Your task to perform on an android device: Clear the cart on walmart.com. Image 0: 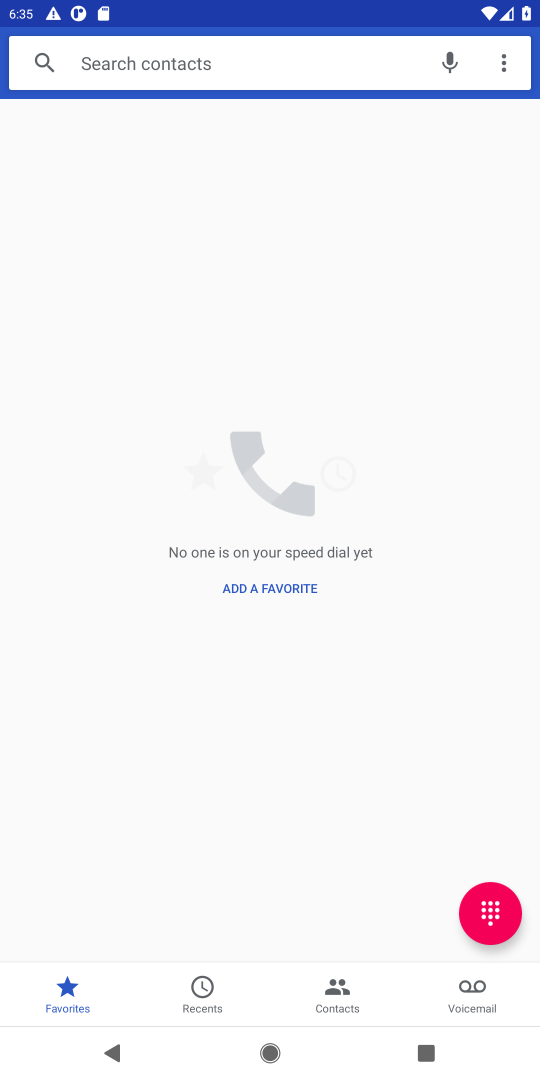
Step 0: press home button
Your task to perform on an android device: Clear the cart on walmart.com. Image 1: 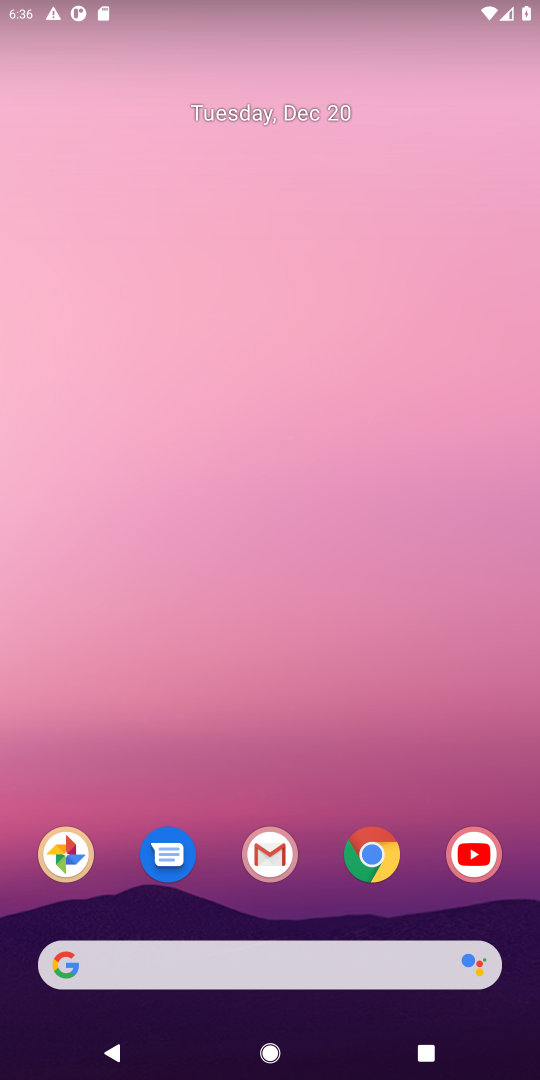
Step 1: click (375, 854)
Your task to perform on an android device: Clear the cart on walmart.com. Image 2: 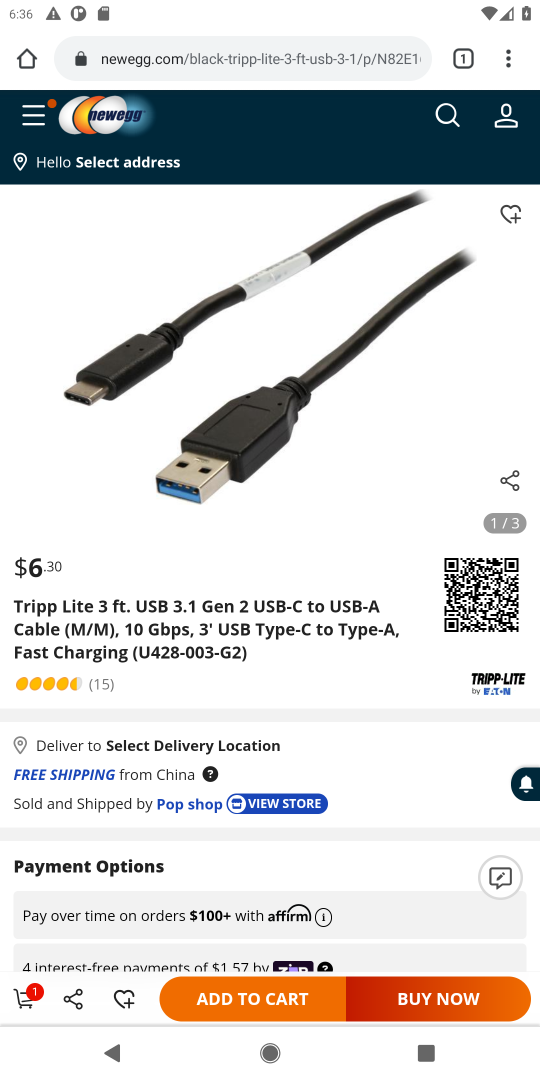
Step 2: click (182, 64)
Your task to perform on an android device: Clear the cart on walmart.com. Image 3: 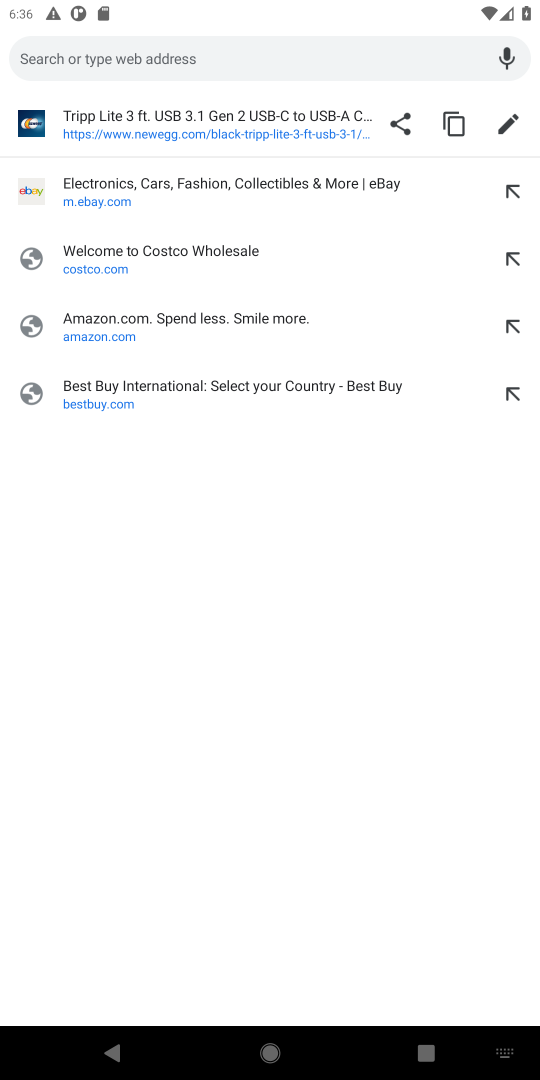
Step 3: type "walmart.com"
Your task to perform on an android device: Clear the cart on walmart.com. Image 4: 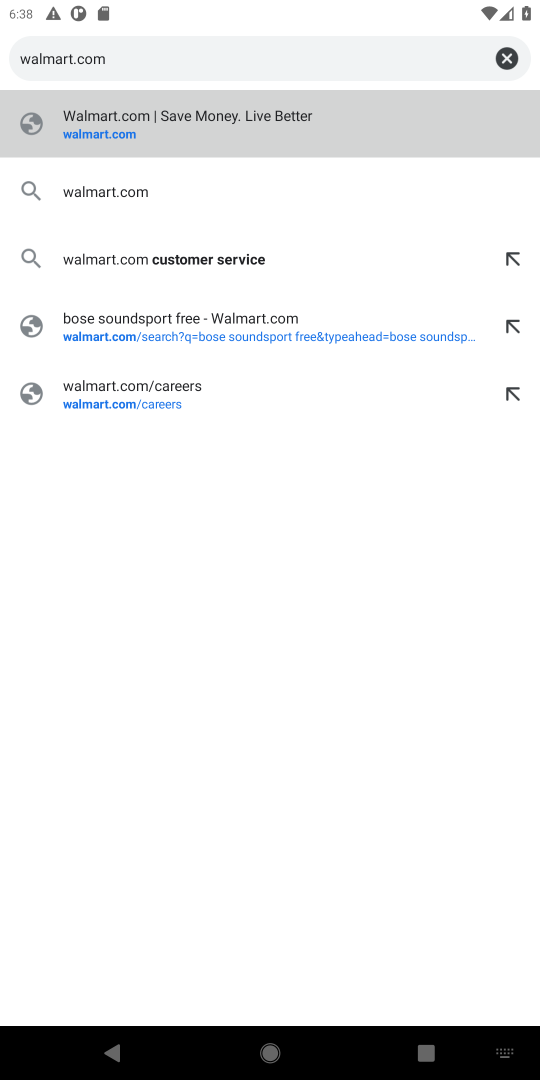
Step 4: click (84, 133)
Your task to perform on an android device: Clear the cart on walmart.com. Image 5: 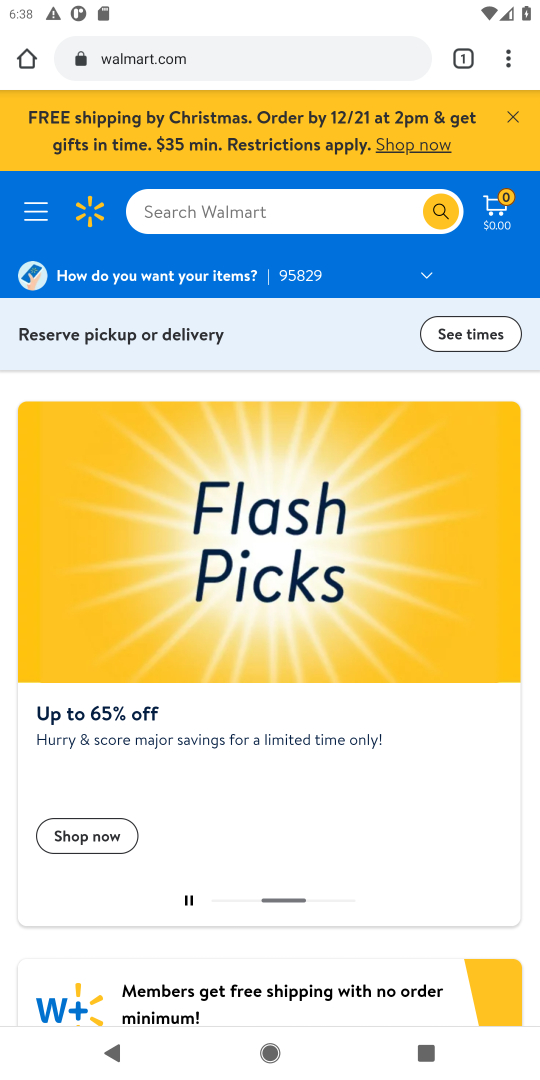
Step 5: click (492, 212)
Your task to perform on an android device: Clear the cart on walmart.com. Image 6: 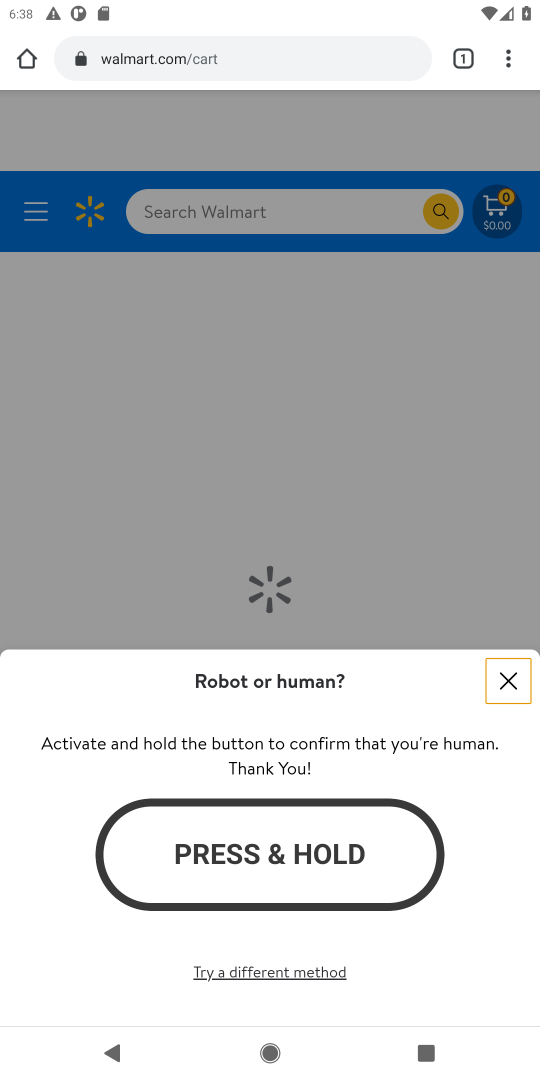
Step 6: click (235, 980)
Your task to perform on an android device: Clear the cart on walmart.com. Image 7: 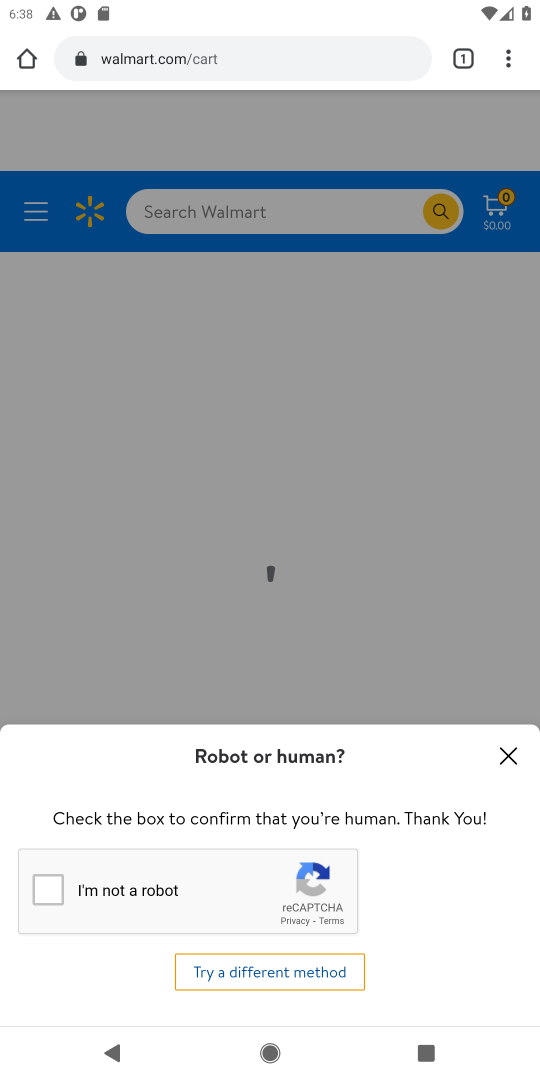
Step 7: click (46, 896)
Your task to perform on an android device: Clear the cart on walmart.com. Image 8: 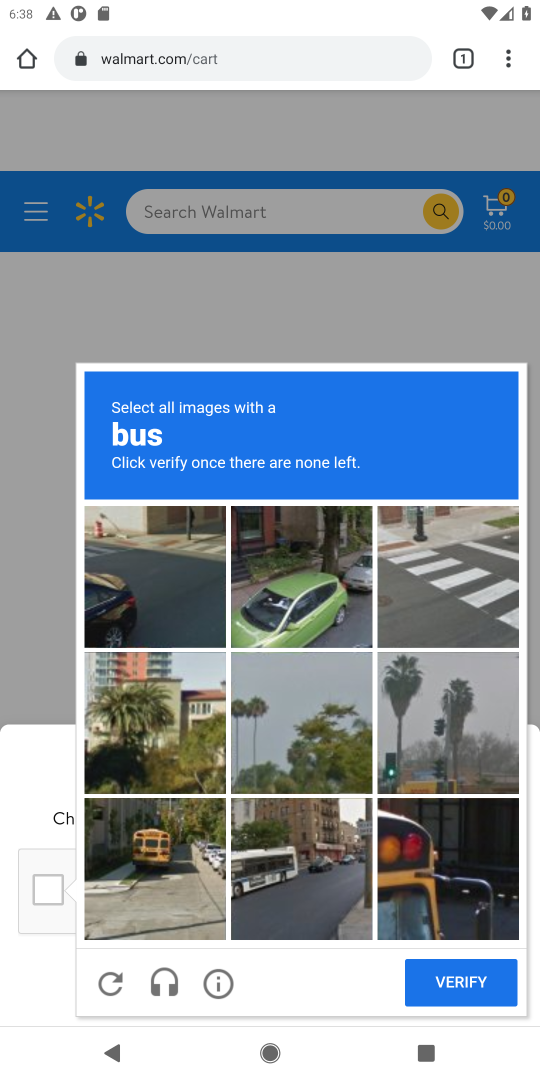
Step 8: click (206, 877)
Your task to perform on an android device: Clear the cart on walmart.com. Image 9: 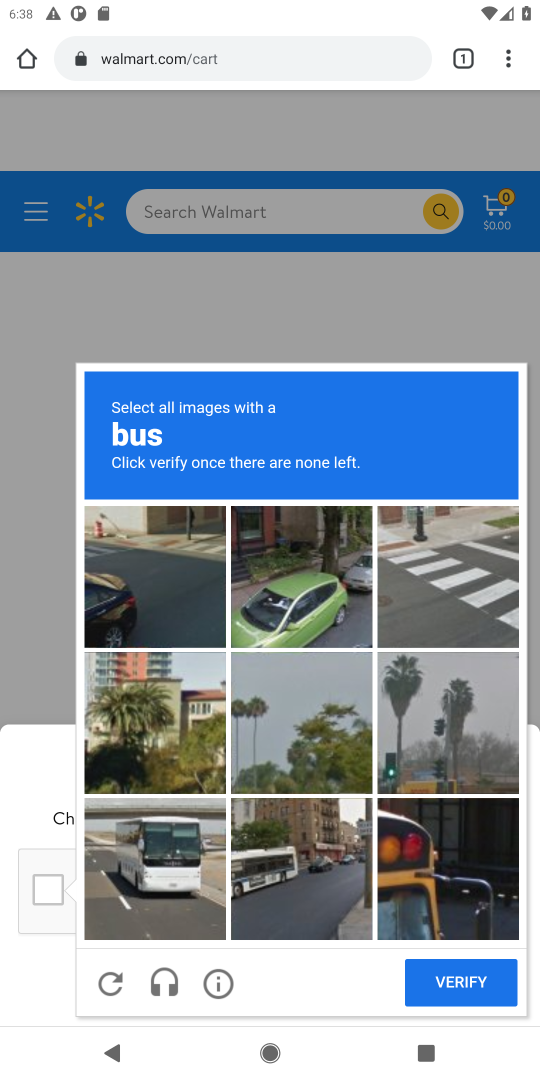
Step 9: click (308, 896)
Your task to perform on an android device: Clear the cart on walmart.com. Image 10: 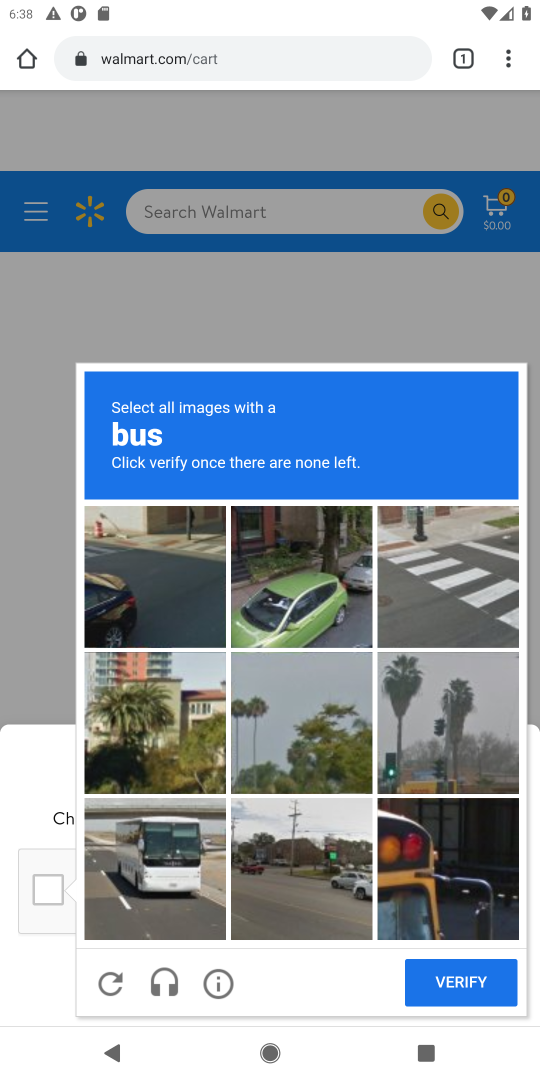
Step 10: click (184, 879)
Your task to perform on an android device: Clear the cart on walmart.com. Image 11: 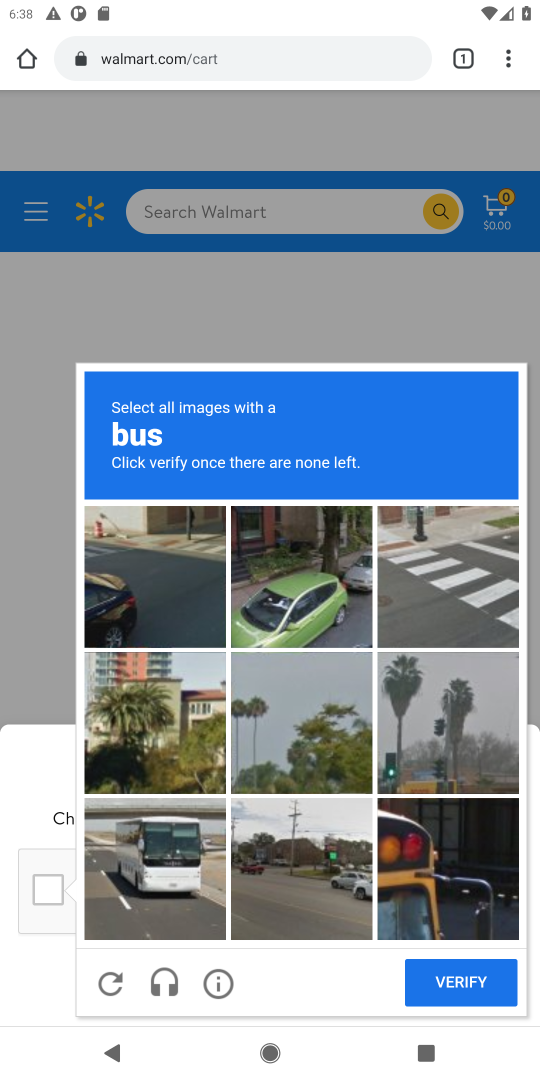
Step 11: click (173, 869)
Your task to perform on an android device: Clear the cart on walmart.com. Image 12: 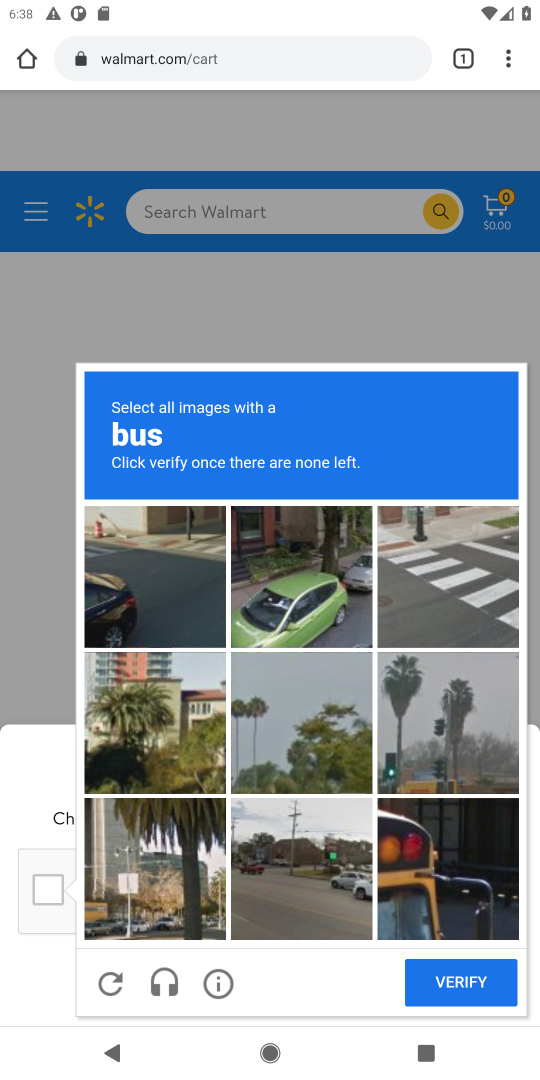
Step 12: click (469, 855)
Your task to perform on an android device: Clear the cart on walmart.com. Image 13: 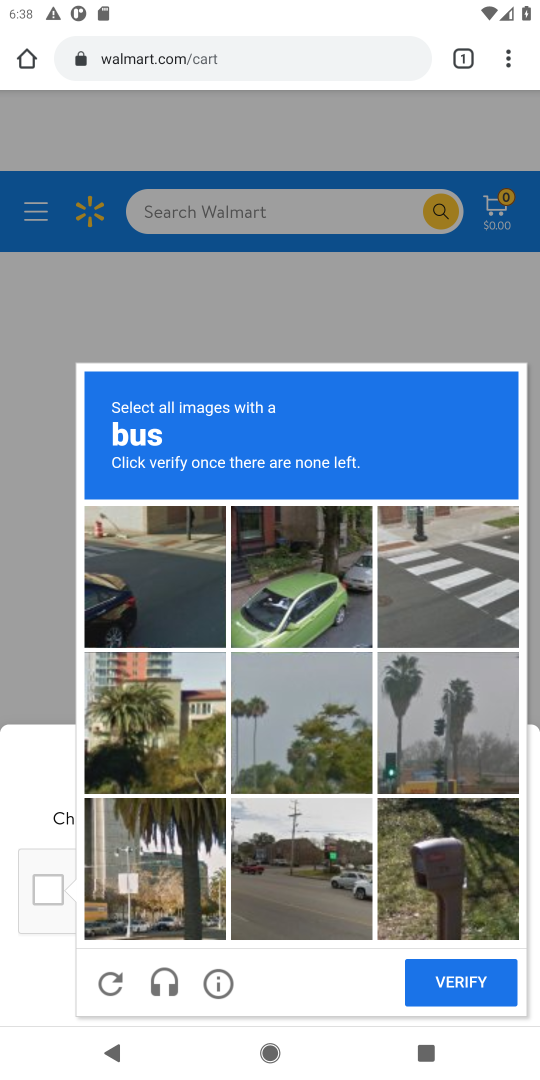
Step 13: click (95, 892)
Your task to perform on an android device: Clear the cart on walmart.com. Image 14: 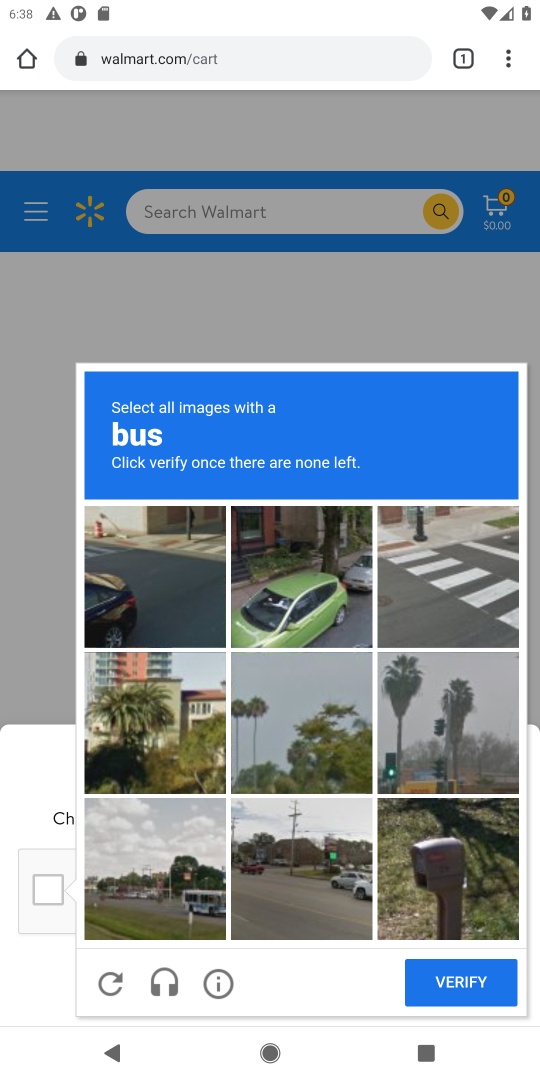
Step 14: click (141, 885)
Your task to perform on an android device: Clear the cart on walmart.com. Image 15: 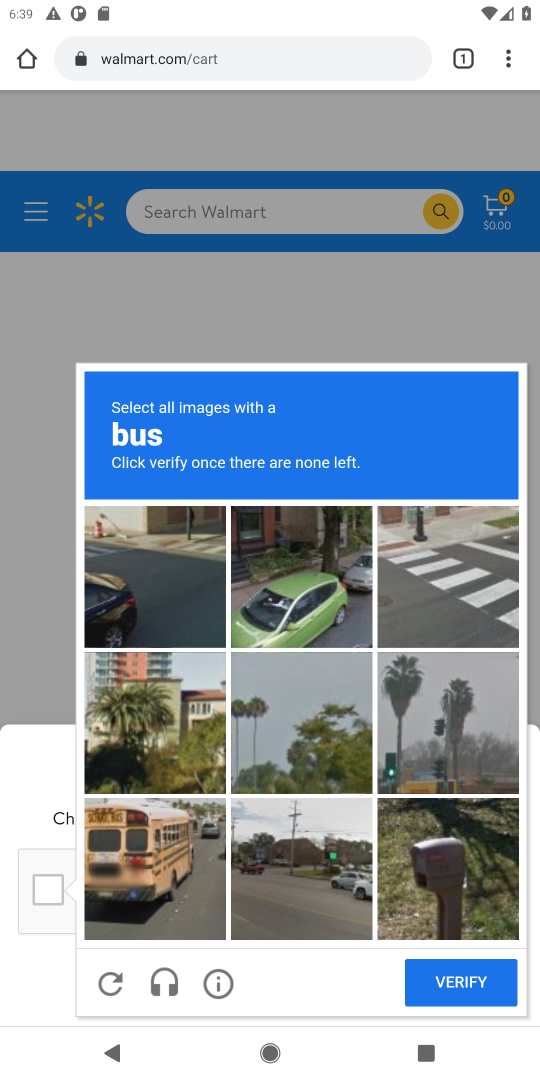
Step 15: click (141, 885)
Your task to perform on an android device: Clear the cart on walmart.com. Image 16: 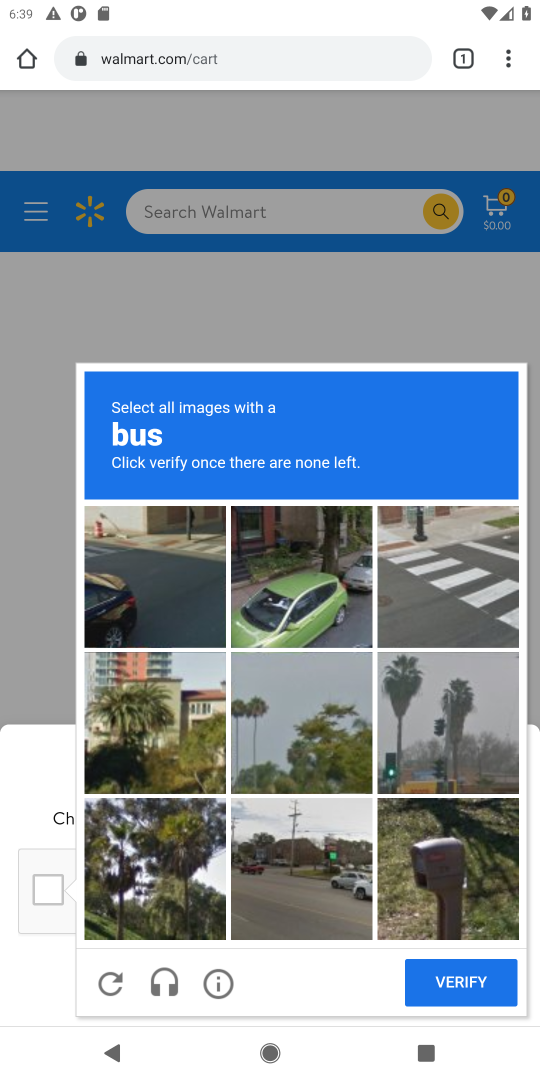
Step 16: click (453, 773)
Your task to perform on an android device: Clear the cart on walmart.com. Image 17: 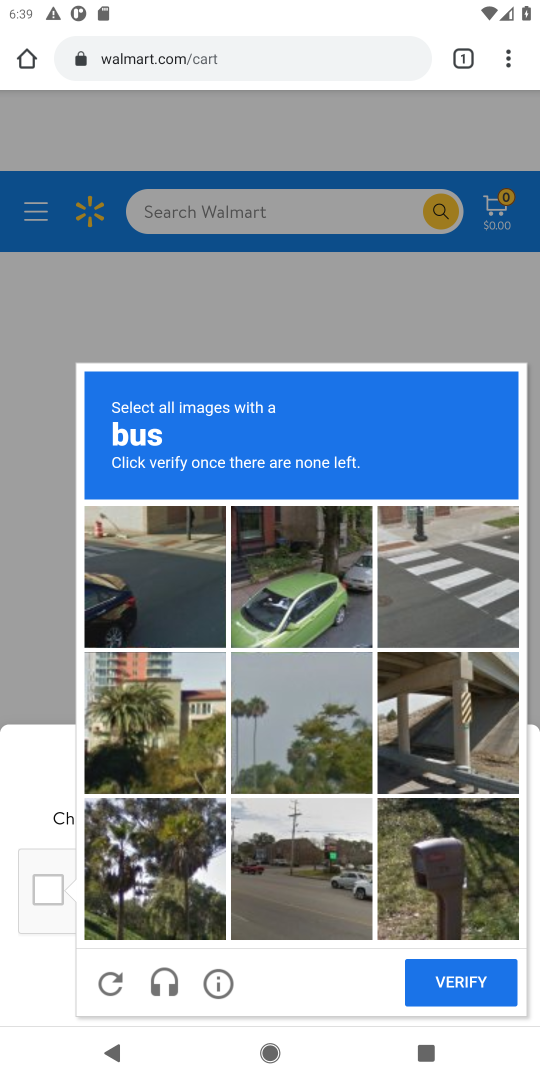
Step 17: click (476, 990)
Your task to perform on an android device: Clear the cart on walmart.com. Image 18: 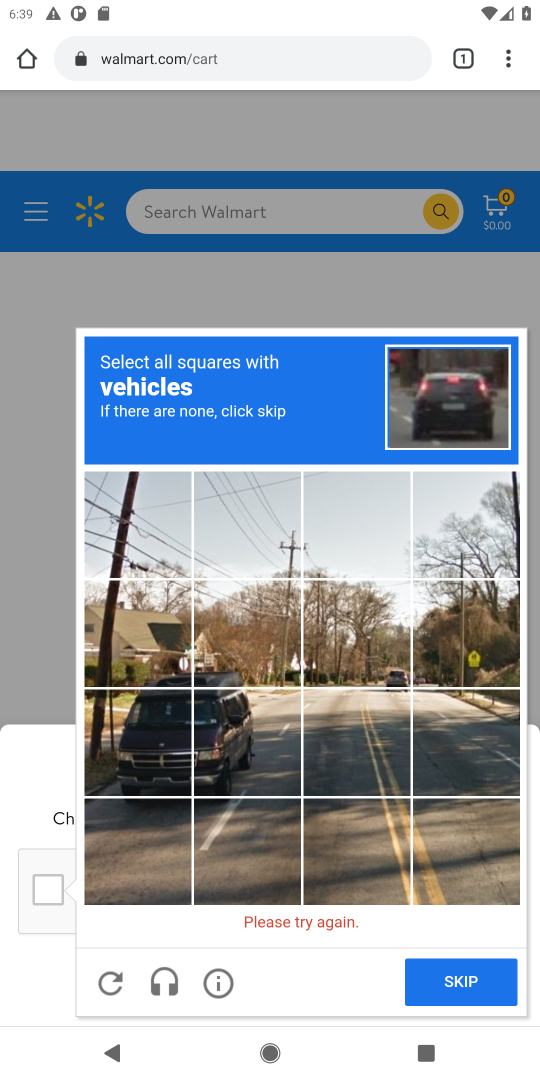
Step 18: click (170, 762)
Your task to perform on an android device: Clear the cart on walmart.com. Image 19: 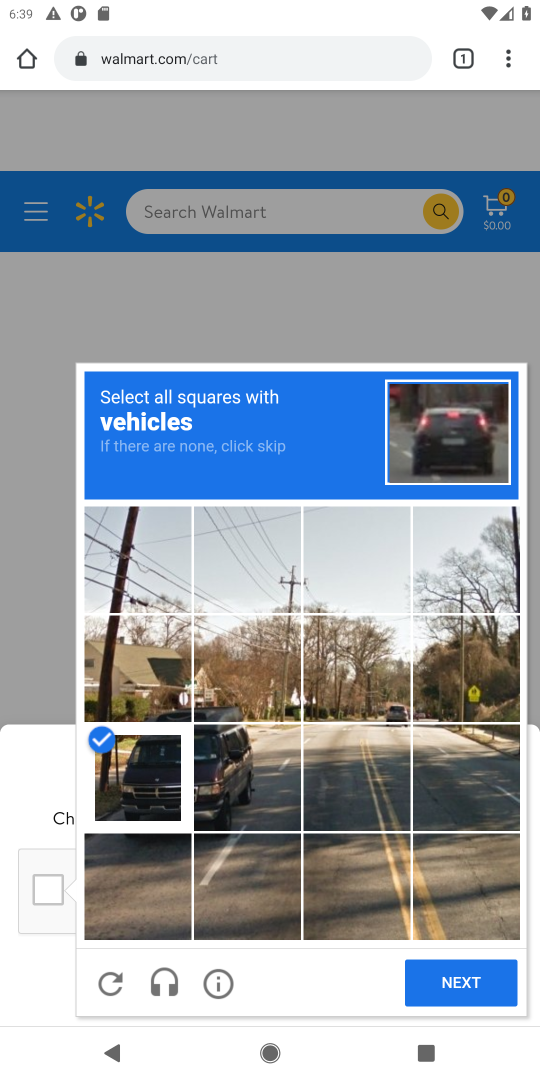
Step 19: click (231, 752)
Your task to perform on an android device: Clear the cart on walmart.com. Image 20: 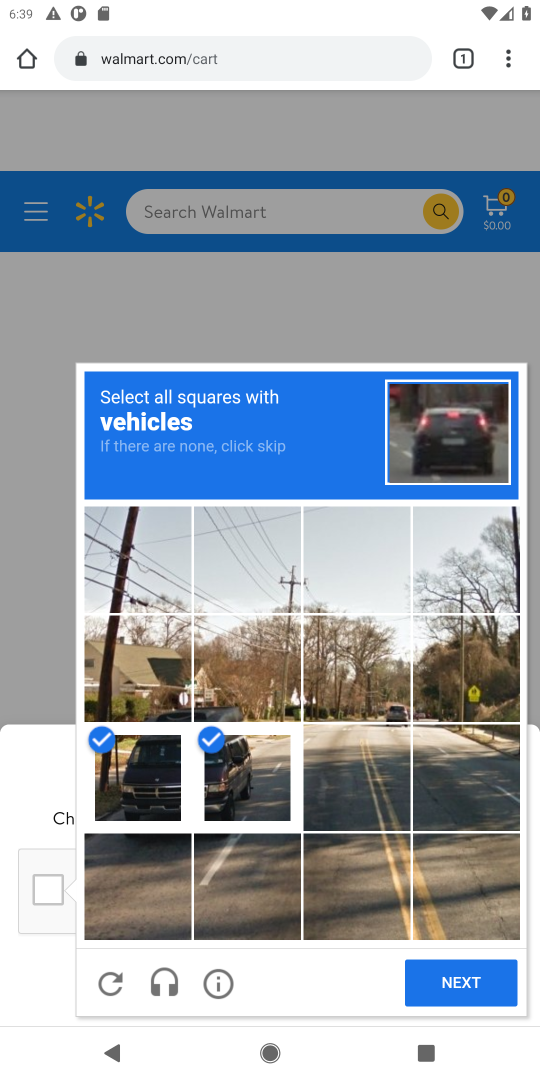
Step 20: click (391, 712)
Your task to perform on an android device: Clear the cart on walmart.com. Image 21: 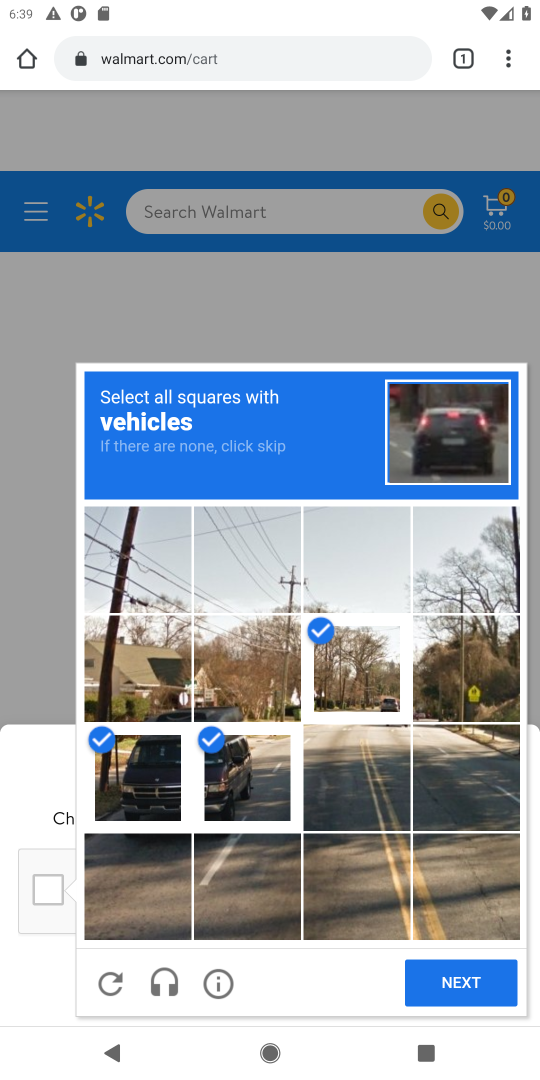
Step 21: click (250, 721)
Your task to perform on an android device: Clear the cart on walmart.com. Image 22: 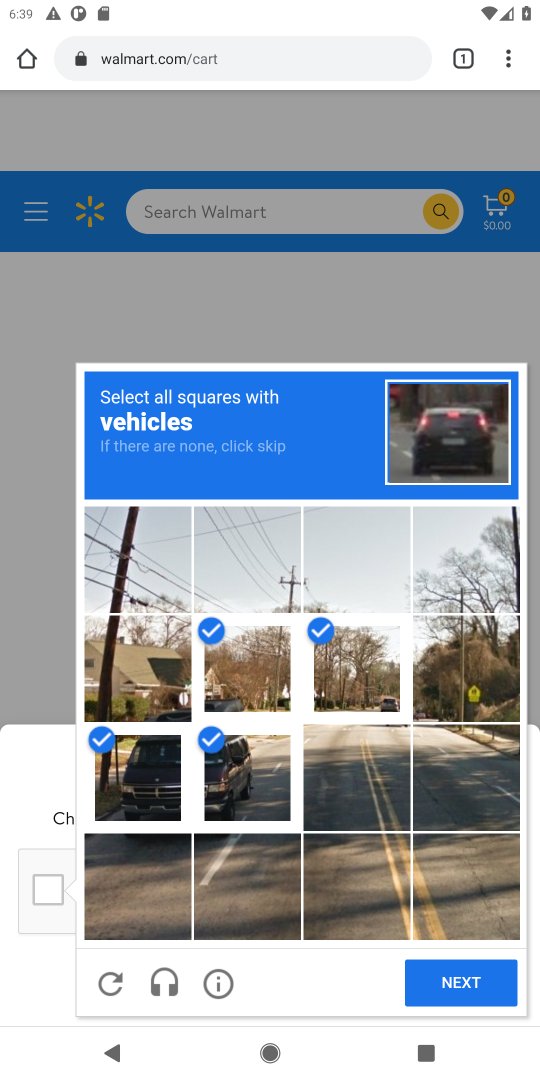
Step 22: click (168, 708)
Your task to perform on an android device: Clear the cart on walmart.com. Image 23: 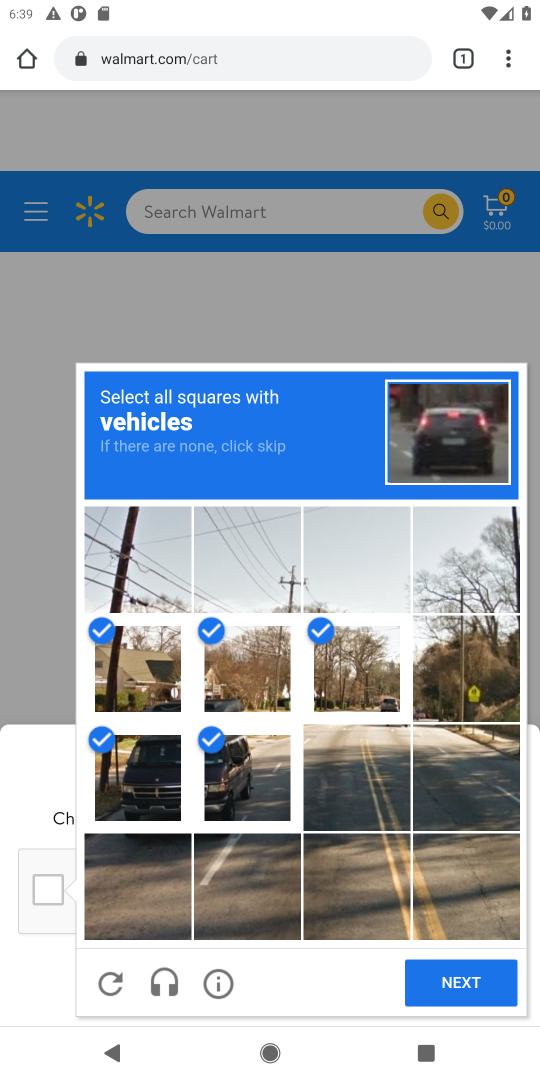
Step 23: click (453, 973)
Your task to perform on an android device: Clear the cart on walmart.com. Image 24: 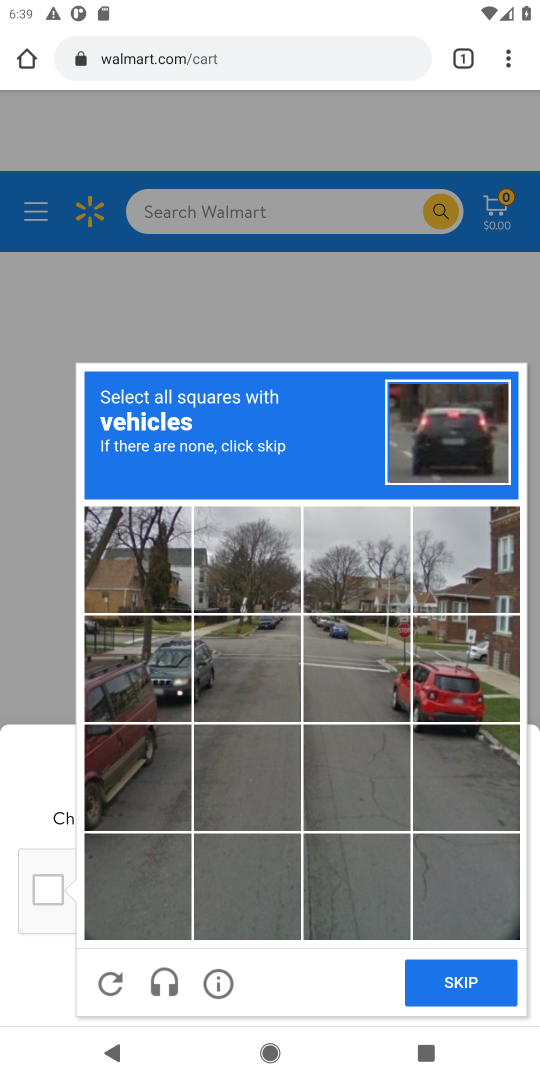
Step 24: click (449, 692)
Your task to perform on an android device: Clear the cart on walmart.com. Image 25: 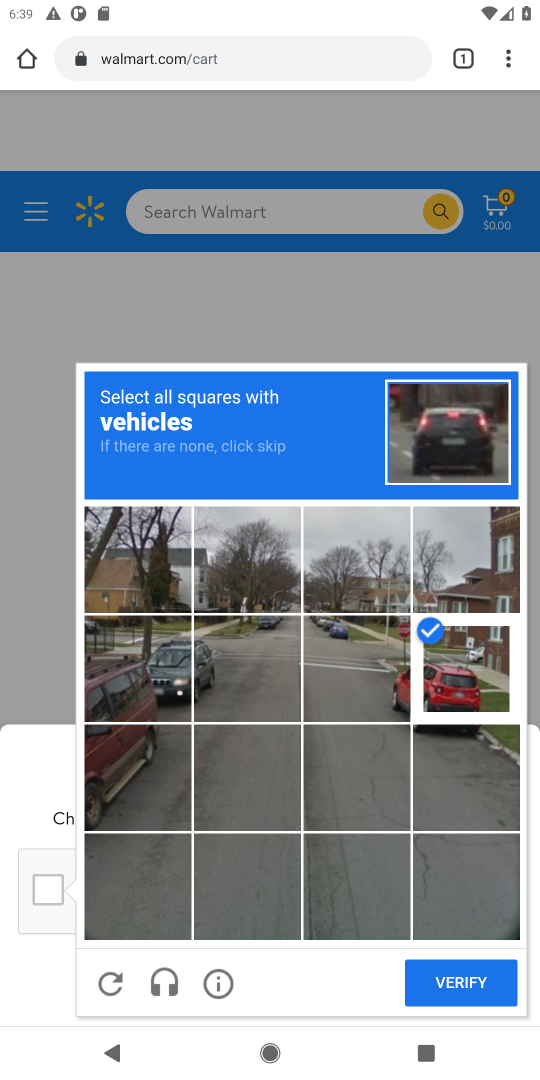
Step 25: click (106, 701)
Your task to perform on an android device: Clear the cart on walmart.com. Image 26: 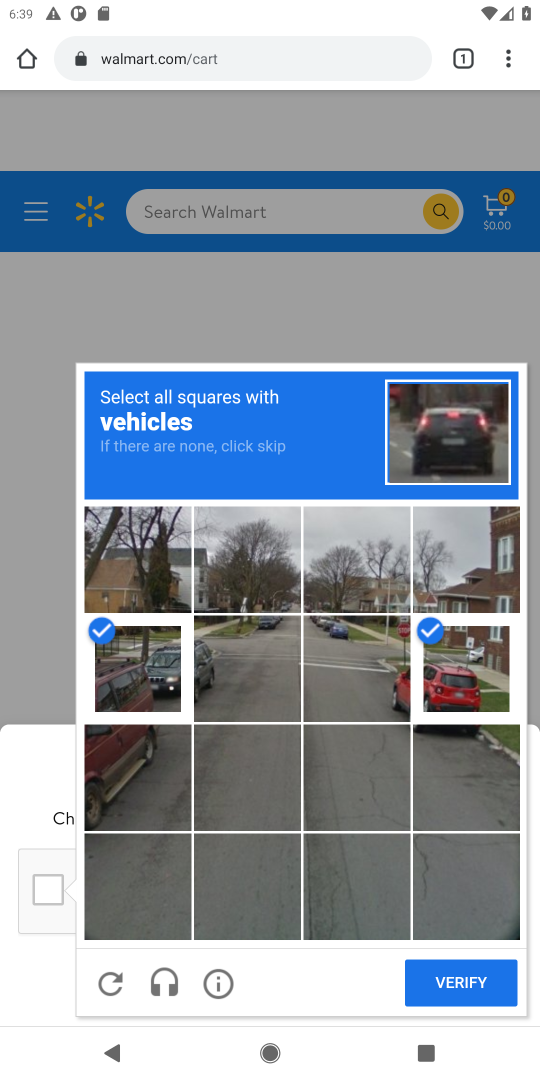
Step 26: click (341, 640)
Your task to perform on an android device: Clear the cart on walmart.com. Image 27: 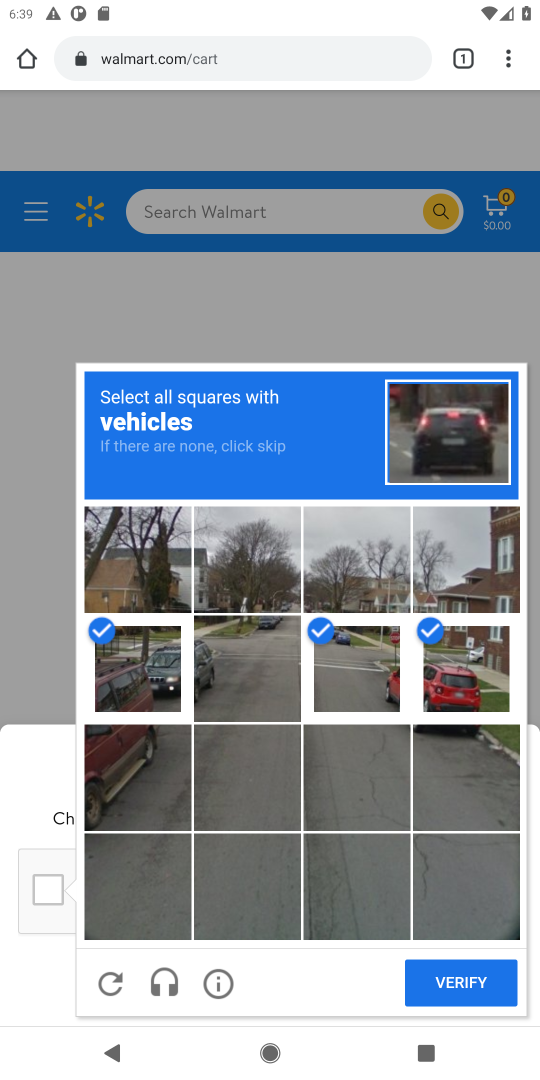
Step 27: click (262, 648)
Your task to perform on an android device: Clear the cart on walmart.com. Image 28: 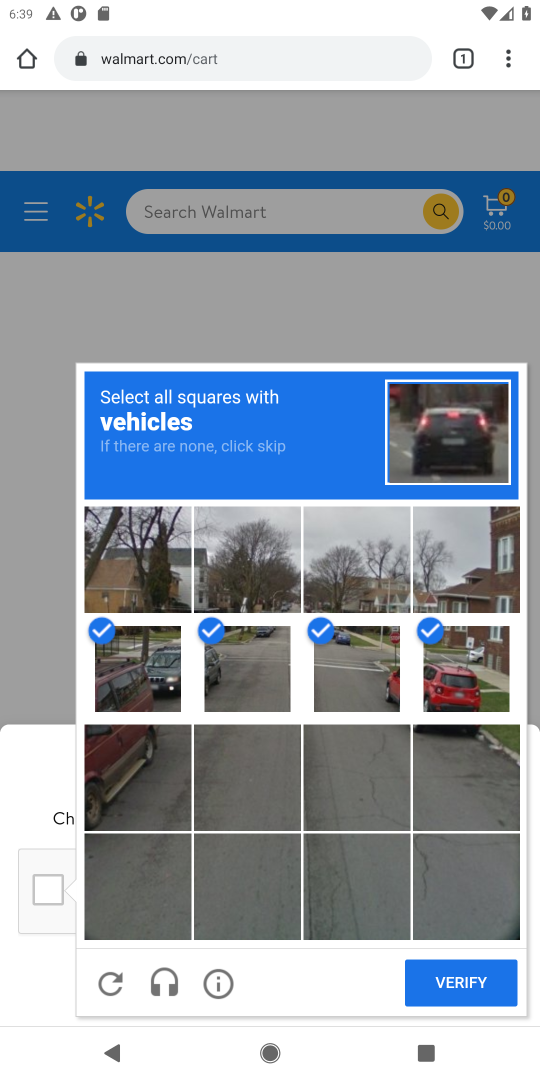
Step 28: click (147, 782)
Your task to perform on an android device: Clear the cart on walmart.com. Image 29: 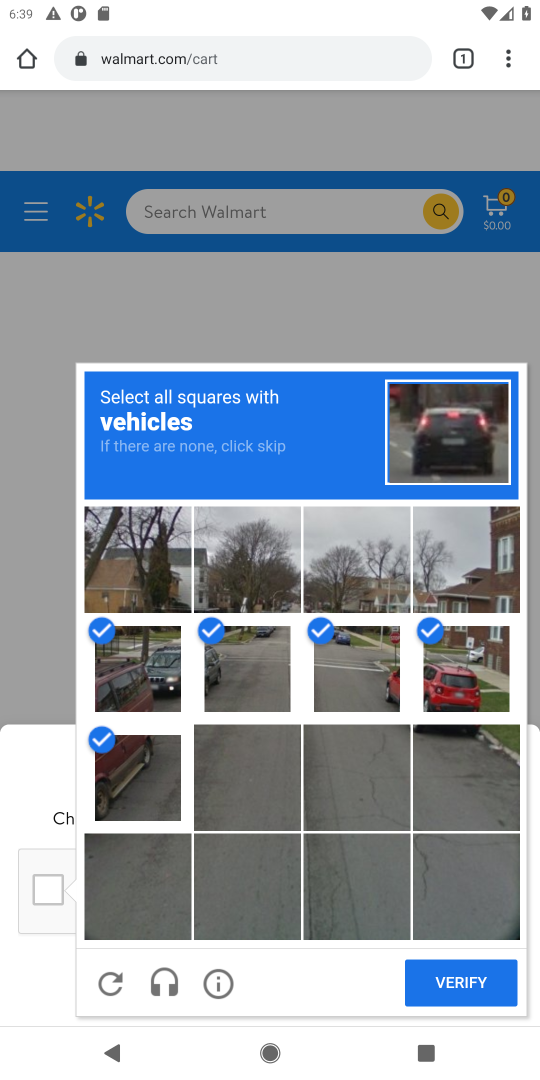
Step 29: click (475, 978)
Your task to perform on an android device: Clear the cart on walmart.com. Image 30: 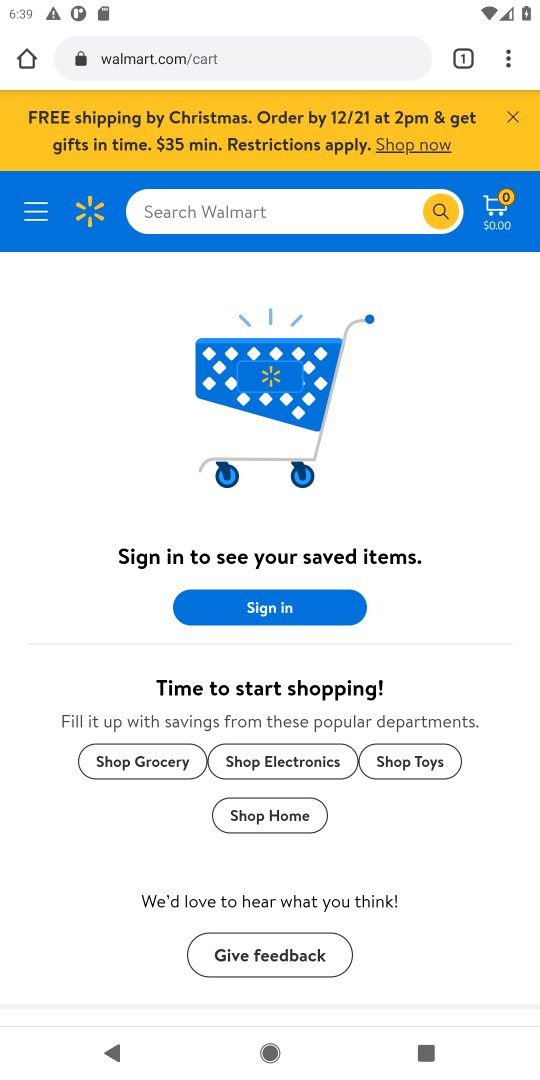
Step 30: task complete